Your task to perform on an android device: Play the last video I watched on Youtube Image 0: 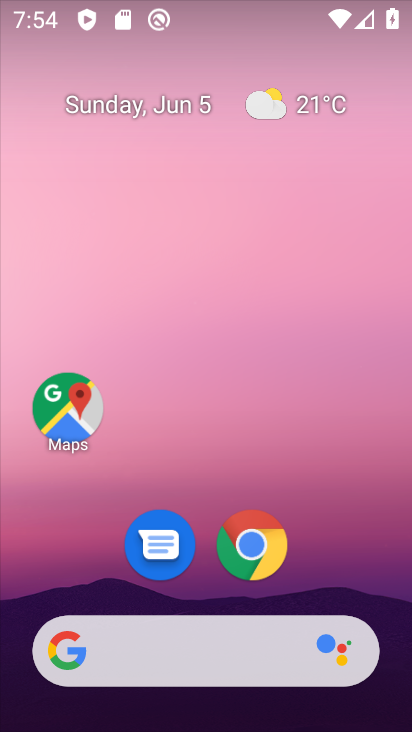
Step 0: drag from (338, 545) to (265, 85)
Your task to perform on an android device: Play the last video I watched on Youtube Image 1: 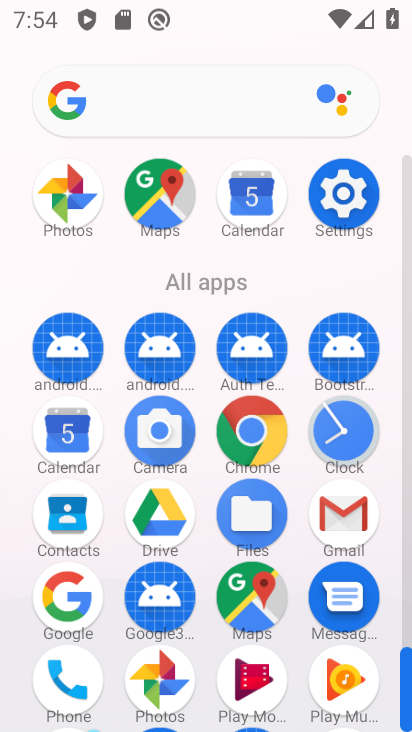
Step 1: drag from (308, 294) to (280, 68)
Your task to perform on an android device: Play the last video I watched on Youtube Image 2: 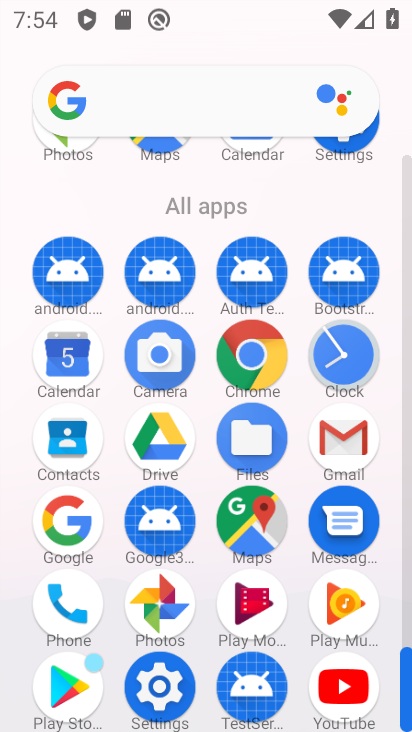
Step 2: click (345, 686)
Your task to perform on an android device: Play the last video I watched on Youtube Image 3: 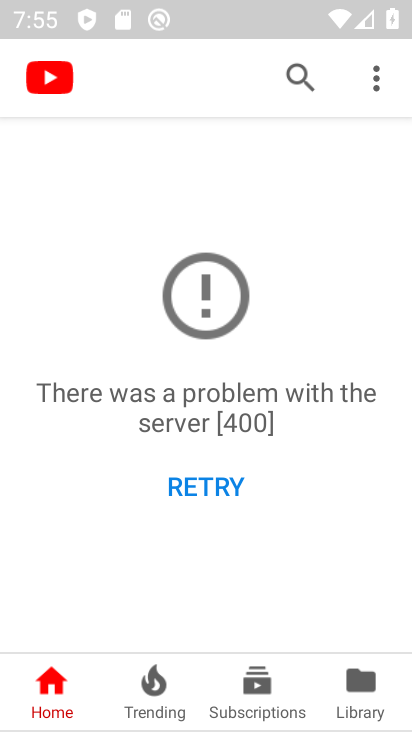
Step 3: click (216, 493)
Your task to perform on an android device: Play the last video I watched on Youtube Image 4: 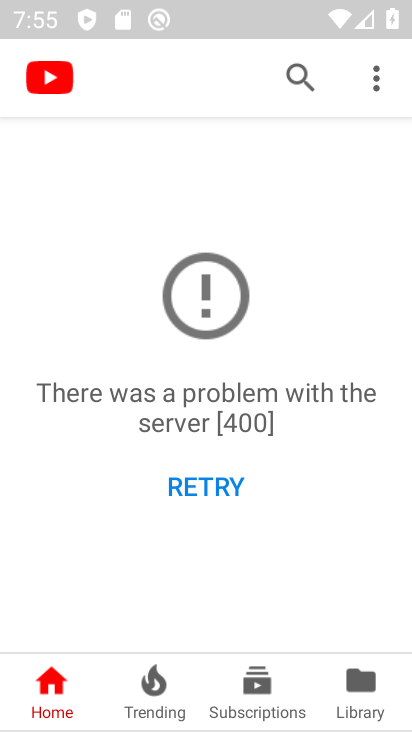
Step 4: click (216, 493)
Your task to perform on an android device: Play the last video I watched on Youtube Image 5: 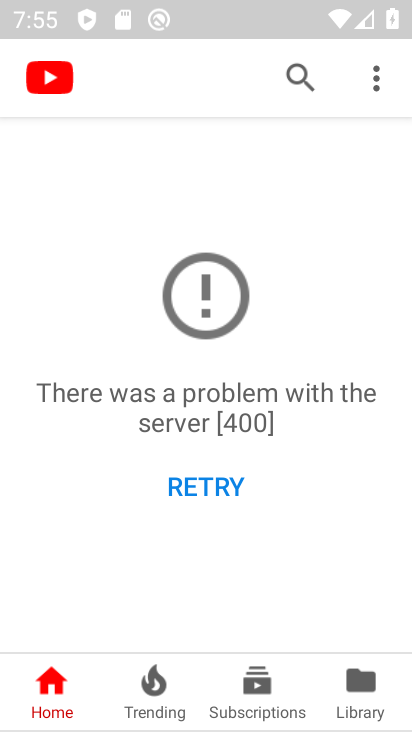
Step 5: click (216, 493)
Your task to perform on an android device: Play the last video I watched on Youtube Image 6: 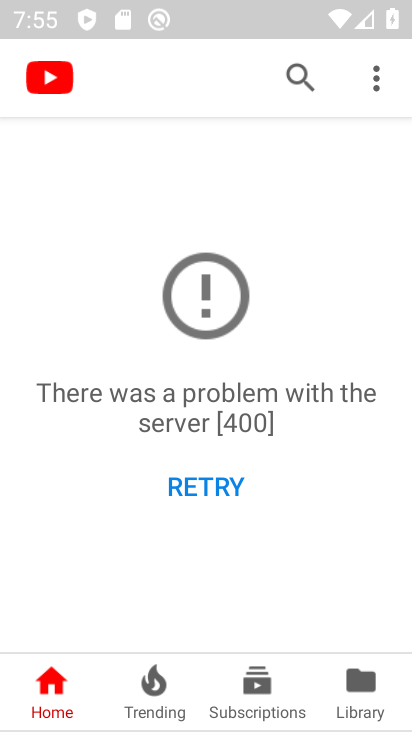
Step 6: click (363, 694)
Your task to perform on an android device: Play the last video I watched on Youtube Image 7: 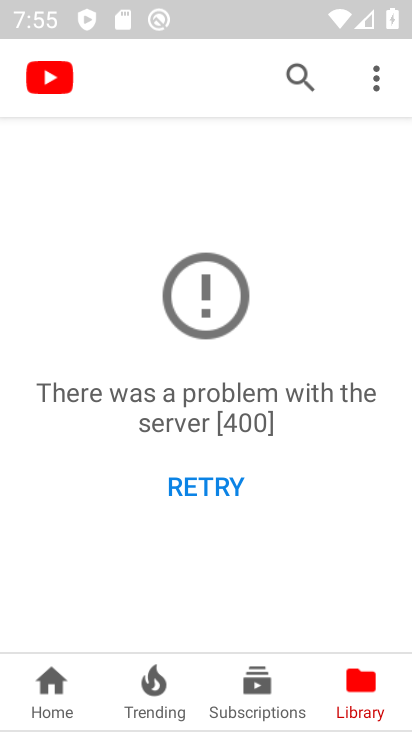
Step 7: click (213, 497)
Your task to perform on an android device: Play the last video I watched on Youtube Image 8: 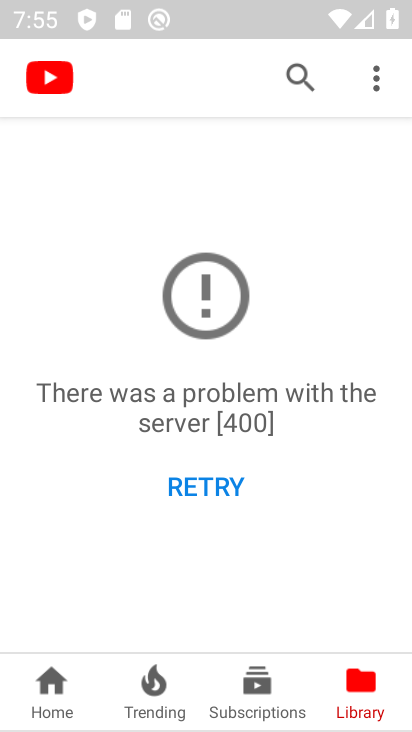
Step 8: task complete